Your task to perform on an android device: turn off translation in the chrome app Image 0: 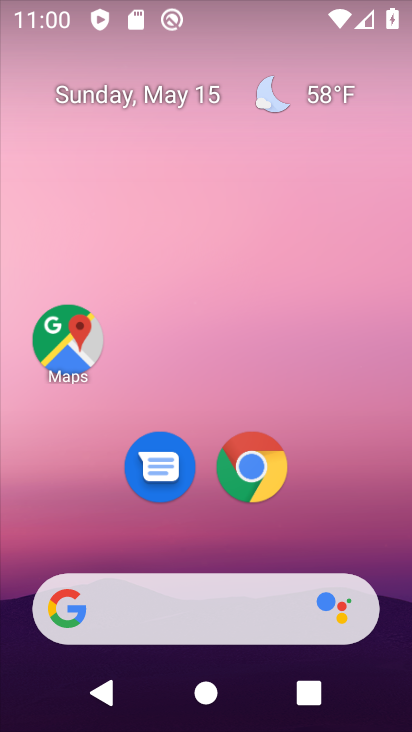
Step 0: press home button
Your task to perform on an android device: turn off translation in the chrome app Image 1: 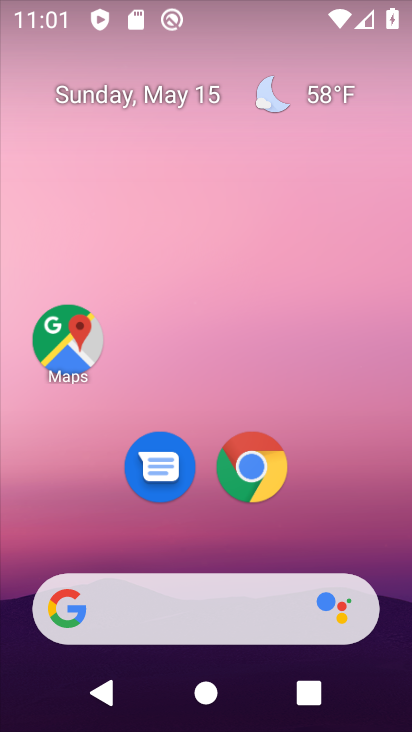
Step 1: click (244, 464)
Your task to perform on an android device: turn off translation in the chrome app Image 2: 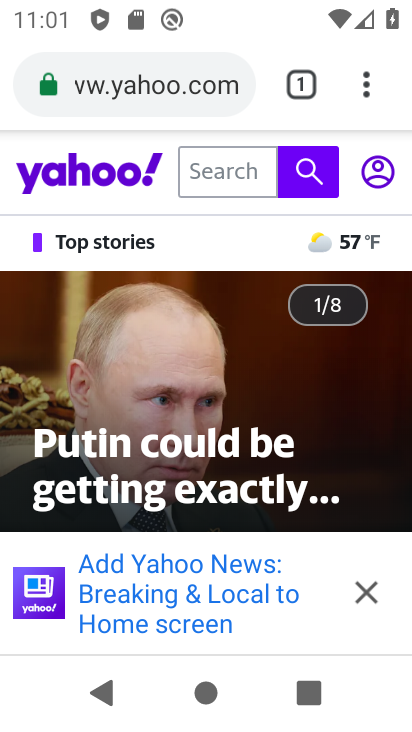
Step 2: click (364, 80)
Your task to perform on an android device: turn off translation in the chrome app Image 3: 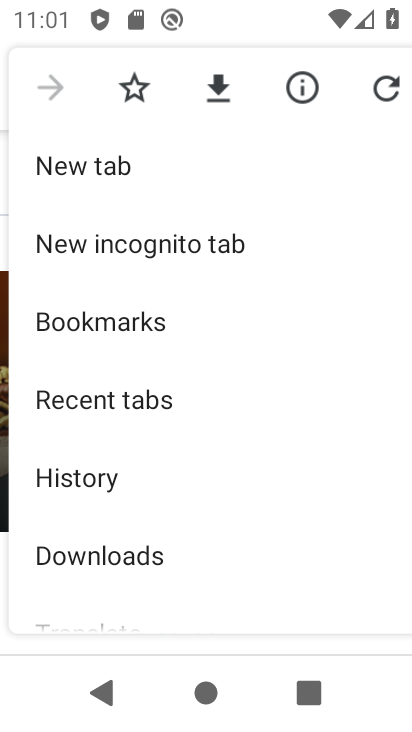
Step 3: drag from (231, 582) to (286, 45)
Your task to perform on an android device: turn off translation in the chrome app Image 4: 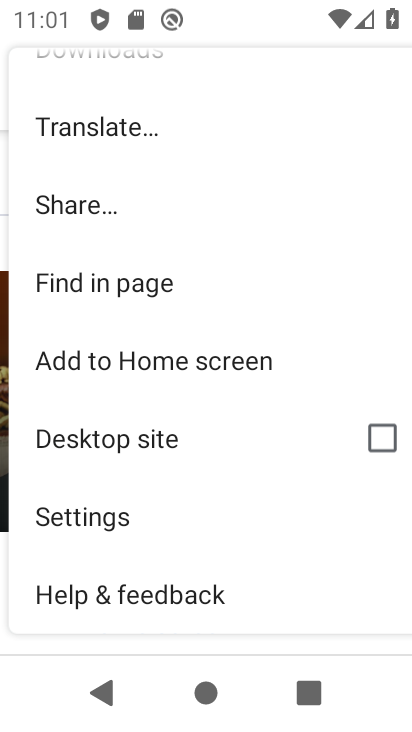
Step 4: click (136, 509)
Your task to perform on an android device: turn off translation in the chrome app Image 5: 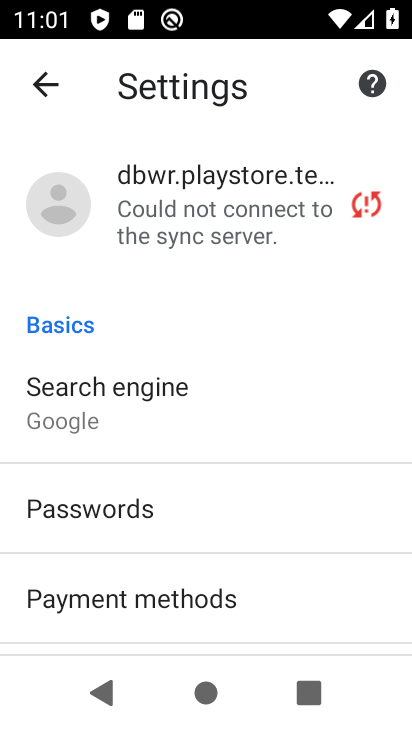
Step 5: drag from (246, 595) to (308, 187)
Your task to perform on an android device: turn off translation in the chrome app Image 6: 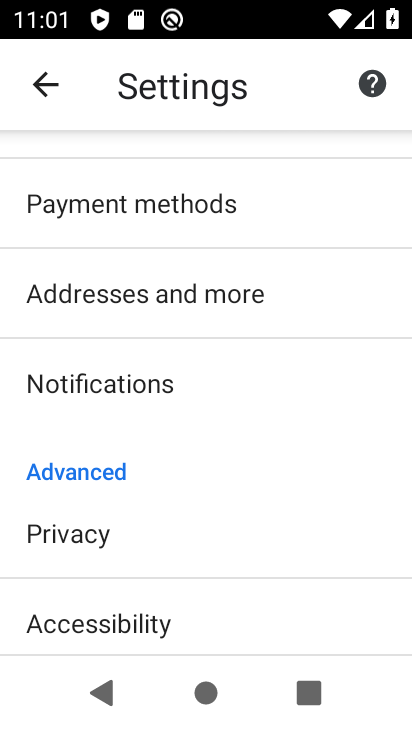
Step 6: drag from (190, 627) to (233, 178)
Your task to perform on an android device: turn off translation in the chrome app Image 7: 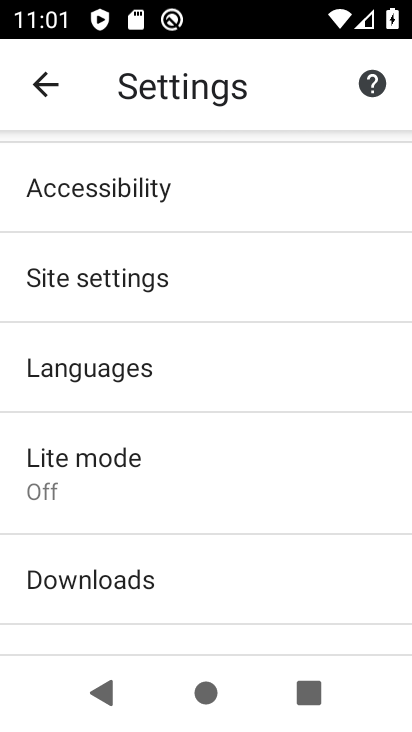
Step 7: drag from (173, 571) to (199, 208)
Your task to perform on an android device: turn off translation in the chrome app Image 8: 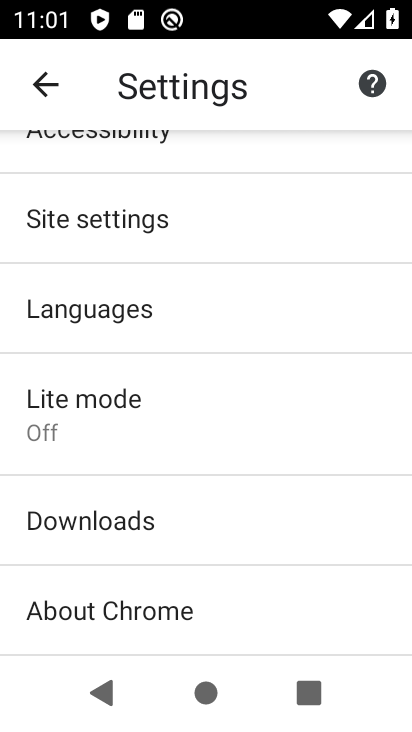
Step 8: click (162, 308)
Your task to perform on an android device: turn off translation in the chrome app Image 9: 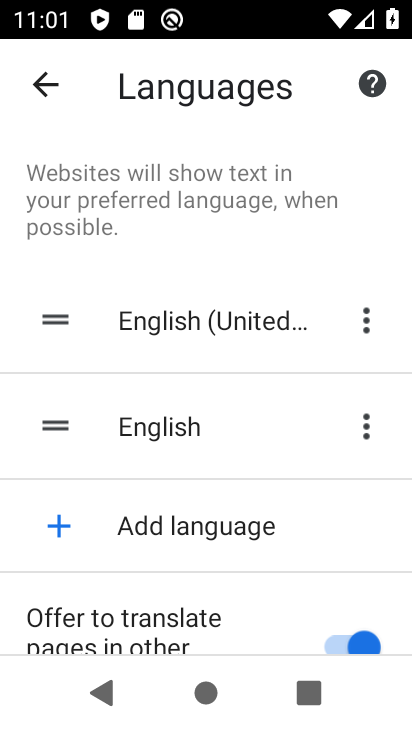
Step 9: click (341, 635)
Your task to perform on an android device: turn off translation in the chrome app Image 10: 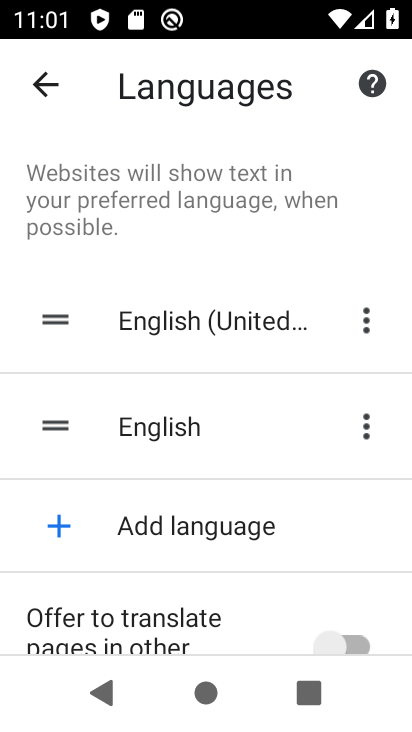
Step 10: task complete